Your task to perform on an android device: turn off translation in the chrome app Image 0: 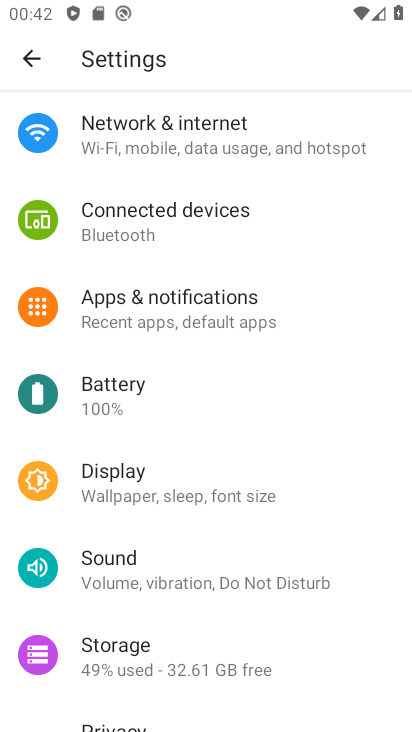
Step 0: press back button
Your task to perform on an android device: turn off translation in the chrome app Image 1: 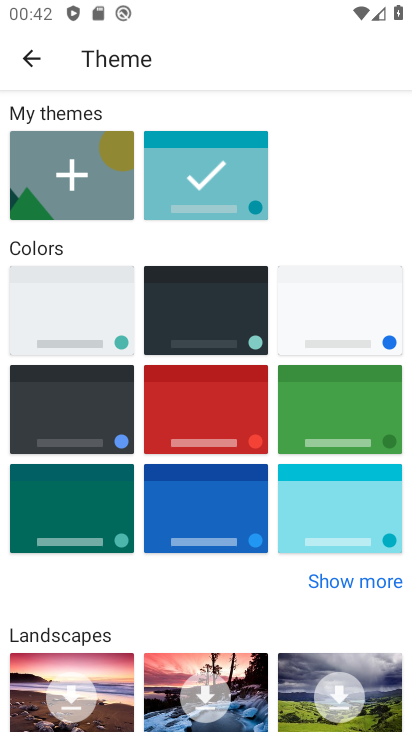
Step 1: press back button
Your task to perform on an android device: turn off translation in the chrome app Image 2: 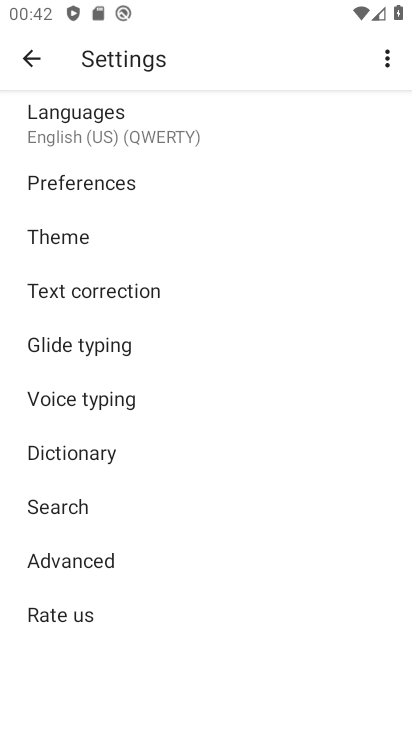
Step 2: press back button
Your task to perform on an android device: turn off translation in the chrome app Image 3: 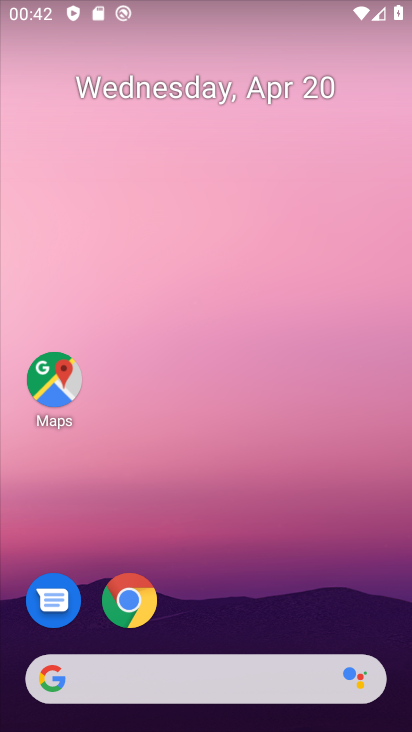
Step 3: click (122, 600)
Your task to perform on an android device: turn off translation in the chrome app Image 4: 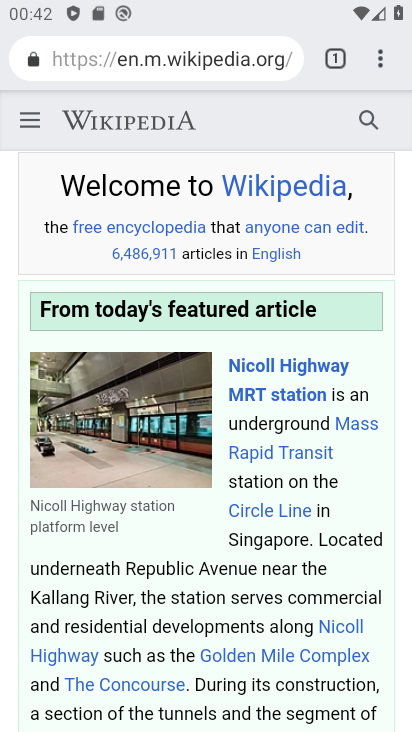
Step 4: drag from (376, 66) to (197, 631)
Your task to perform on an android device: turn off translation in the chrome app Image 5: 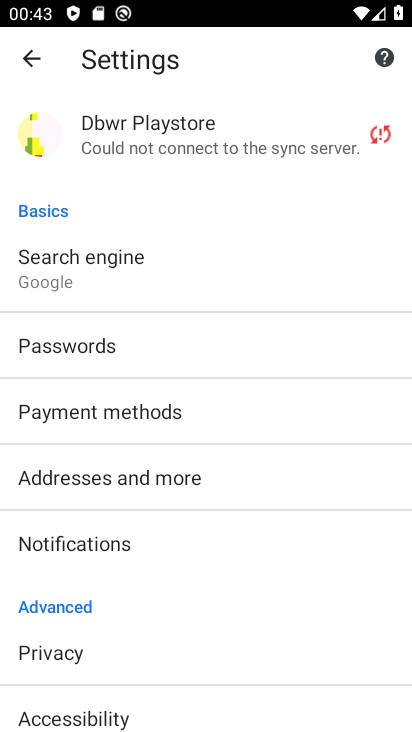
Step 5: drag from (223, 522) to (242, 208)
Your task to perform on an android device: turn off translation in the chrome app Image 6: 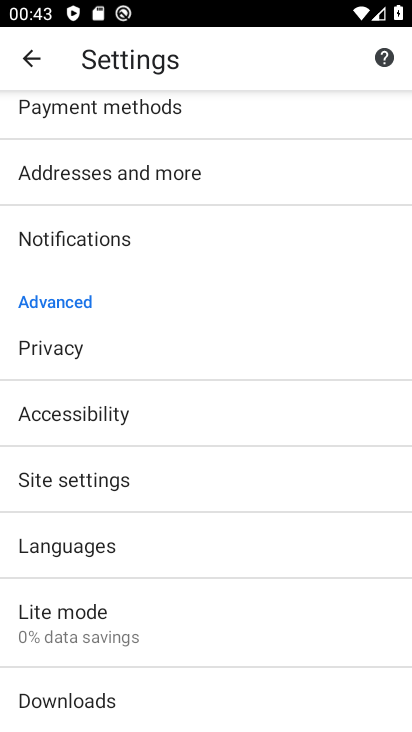
Step 6: click (109, 541)
Your task to perform on an android device: turn off translation in the chrome app Image 7: 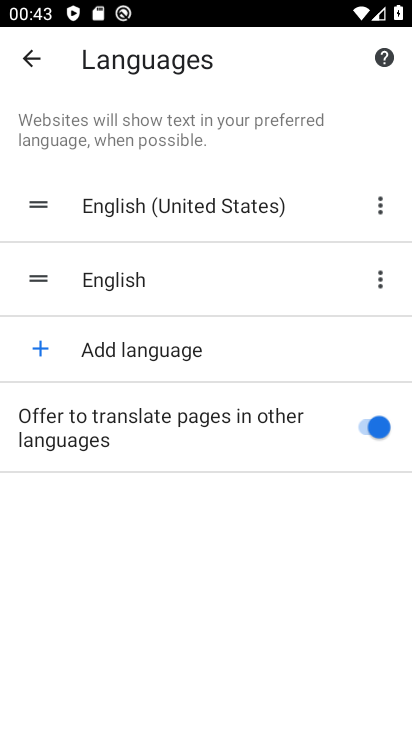
Step 7: click (362, 422)
Your task to perform on an android device: turn off translation in the chrome app Image 8: 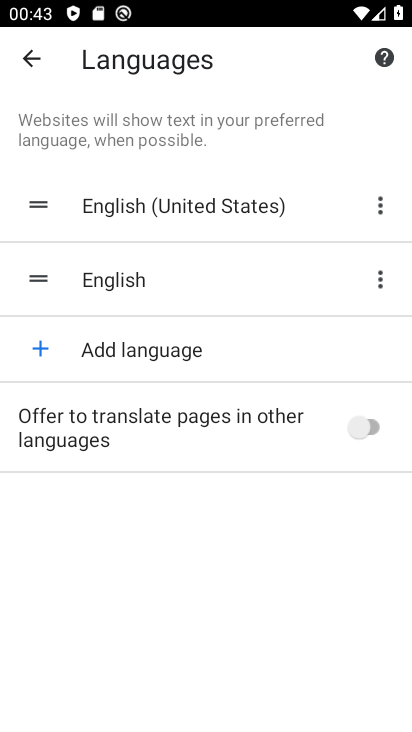
Step 8: task complete